Your task to perform on an android device: check google app version Image 0: 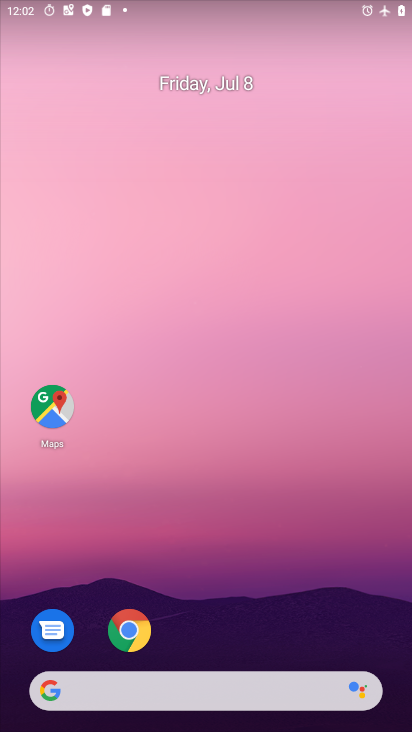
Step 0: drag from (222, 634) to (228, 260)
Your task to perform on an android device: check google app version Image 1: 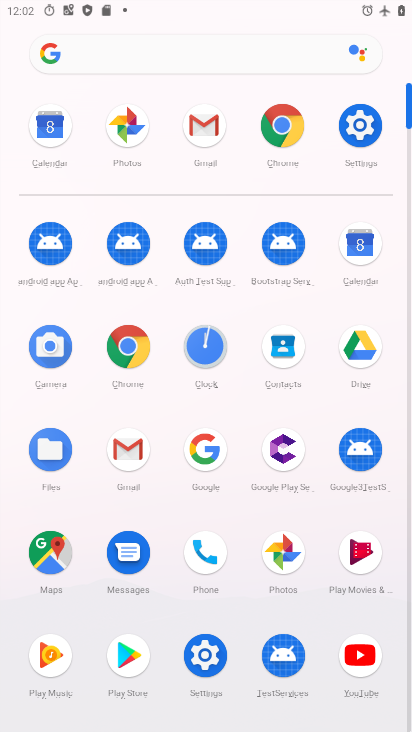
Step 1: click (193, 464)
Your task to perform on an android device: check google app version Image 2: 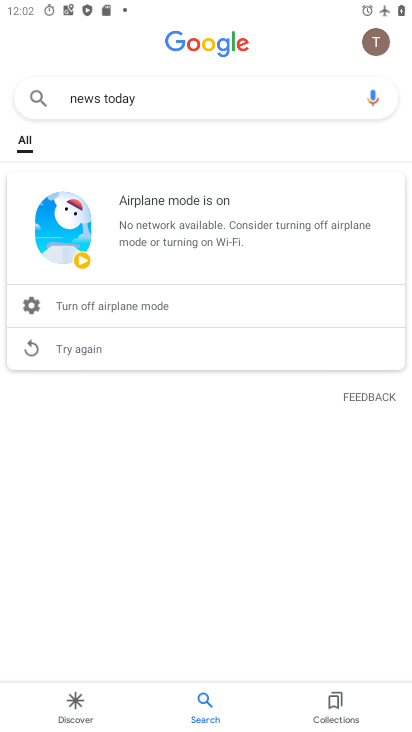
Step 2: click (389, 42)
Your task to perform on an android device: check google app version Image 3: 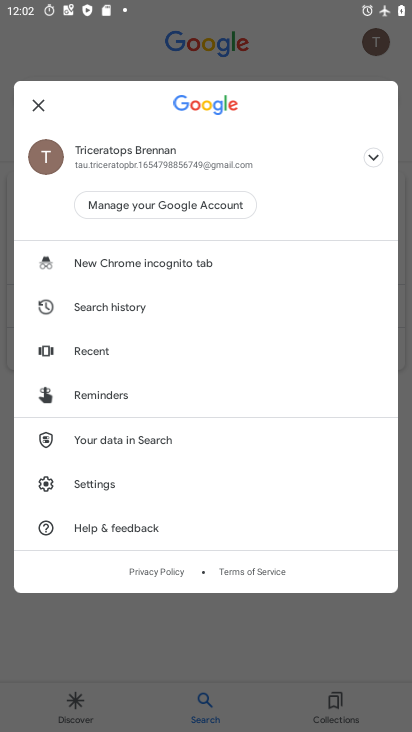
Step 3: click (74, 480)
Your task to perform on an android device: check google app version Image 4: 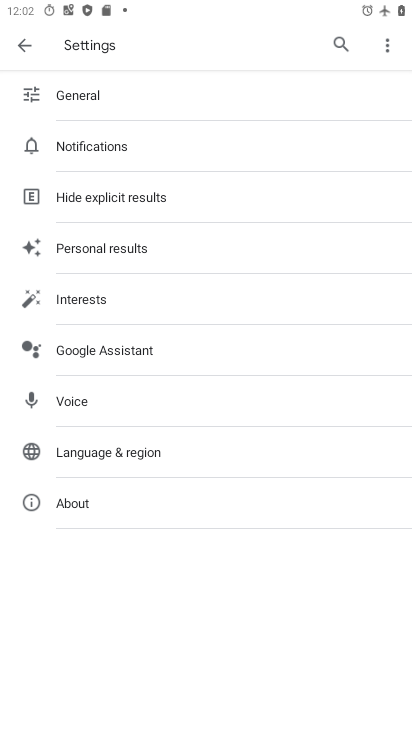
Step 4: click (79, 493)
Your task to perform on an android device: check google app version Image 5: 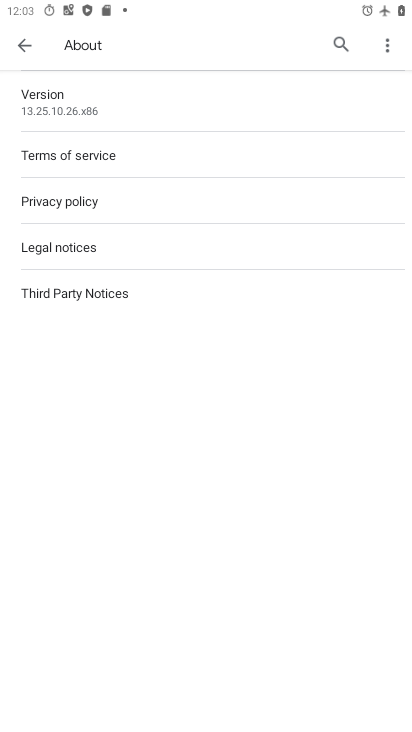
Step 5: click (148, 116)
Your task to perform on an android device: check google app version Image 6: 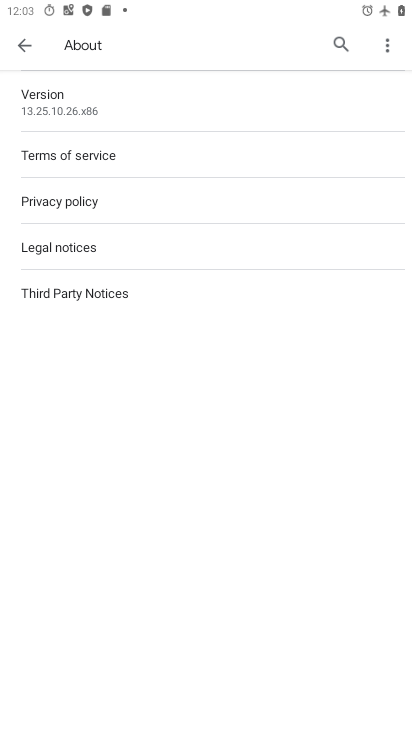
Step 6: task complete